Your task to perform on an android device: set default search engine in the chrome app Image 0: 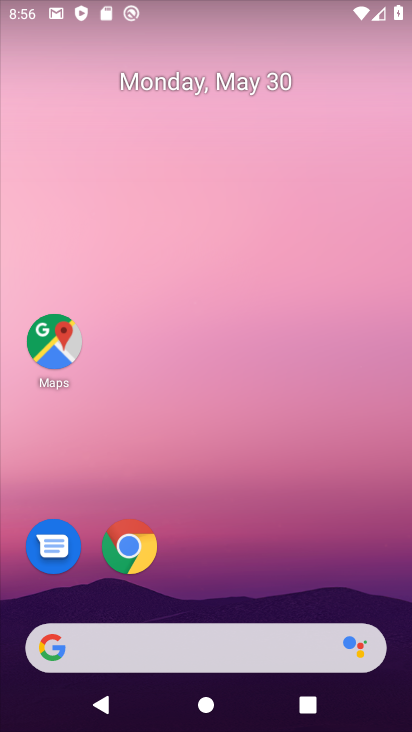
Step 0: click (131, 545)
Your task to perform on an android device: set default search engine in the chrome app Image 1: 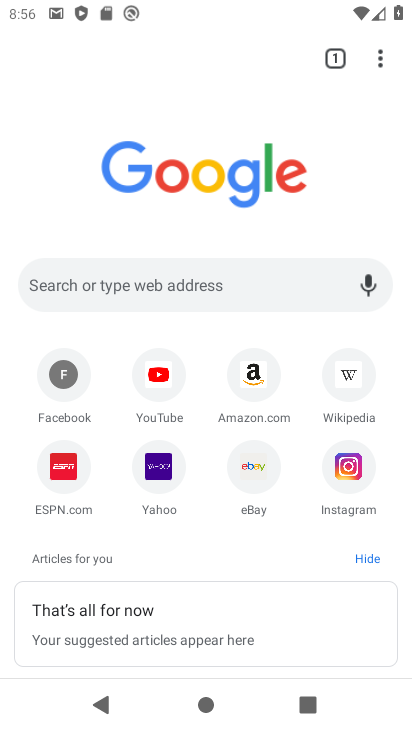
Step 1: click (380, 76)
Your task to perform on an android device: set default search engine in the chrome app Image 2: 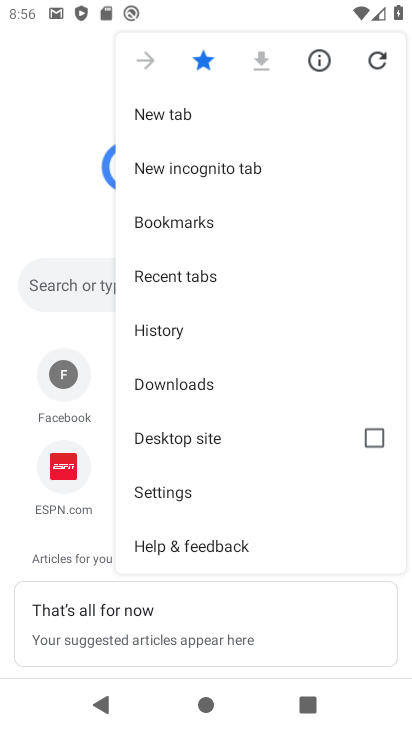
Step 2: click (166, 497)
Your task to perform on an android device: set default search engine in the chrome app Image 3: 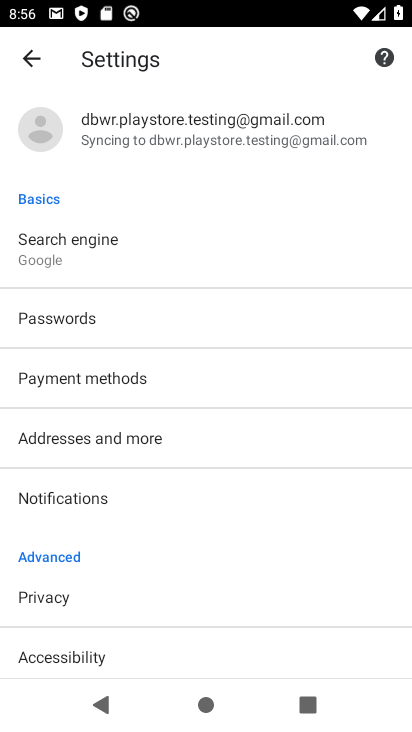
Step 3: click (72, 233)
Your task to perform on an android device: set default search engine in the chrome app Image 4: 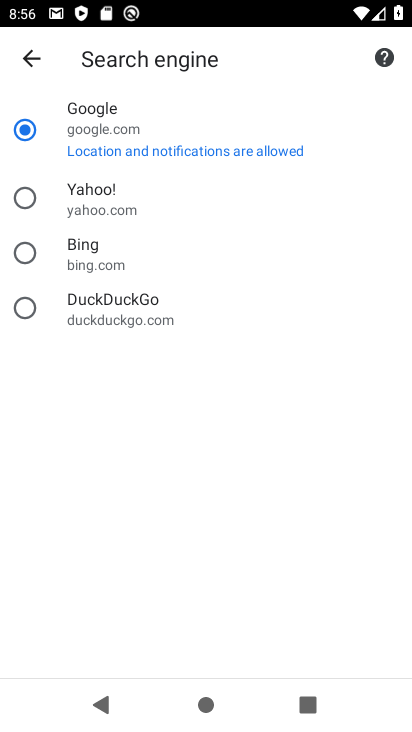
Step 4: task complete